Your task to perform on an android device: What's the weather going to be tomorrow? Image 0: 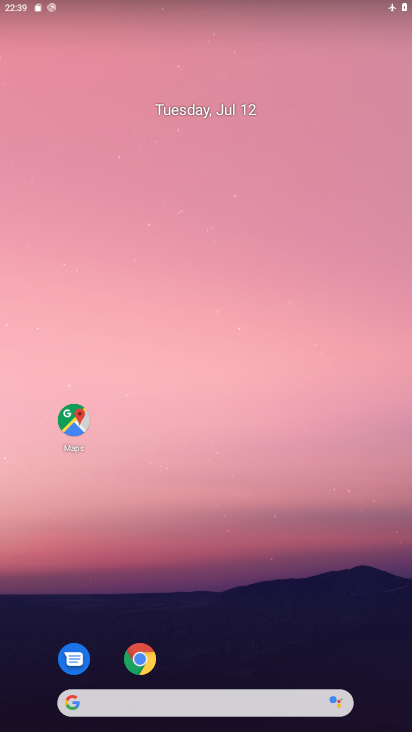
Step 0: drag from (241, 661) to (255, 409)
Your task to perform on an android device: What's the weather going to be tomorrow? Image 1: 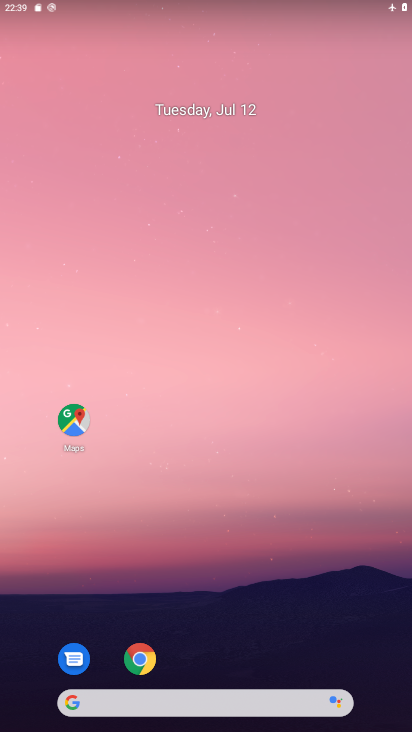
Step 1: drag from (246, 672) to (248, 469)
Your task to perform on an android device: What's the weather going to be tomorrow? Image 2: 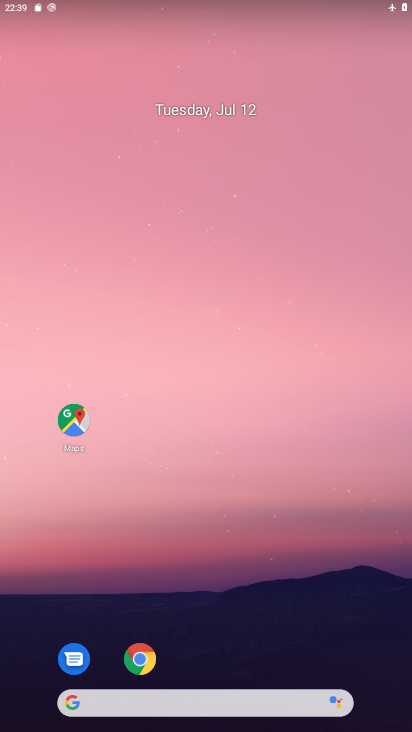
Step 2: drag from (211, 675) to (244, 229)
Your task to perform on an android device: What's the weather going to be tomorrow? Image 3: 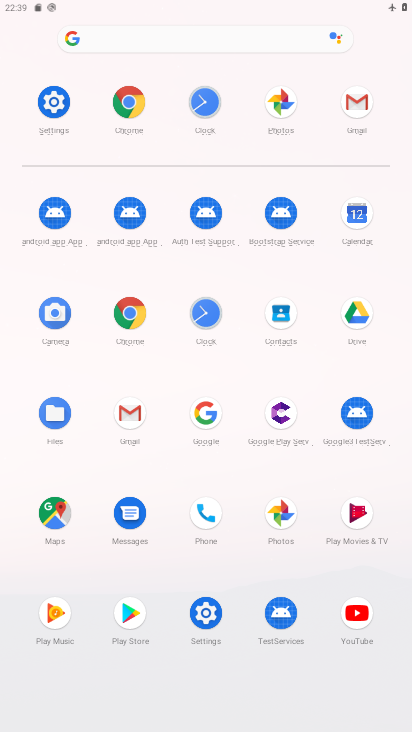
Step 3: click (124, 100)
Your task to perform on an android device: What's the weather going to be tomorrow? Image 4: 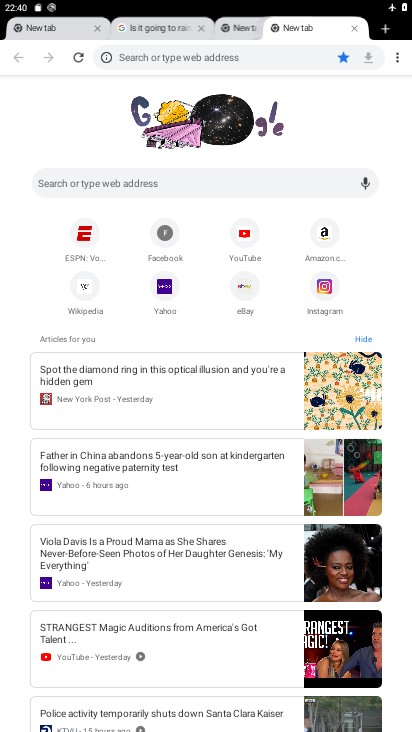
Step 4: click (171, 185)
Your task to perform on an android device: What's the weather going to be tomorrow? Image 5: 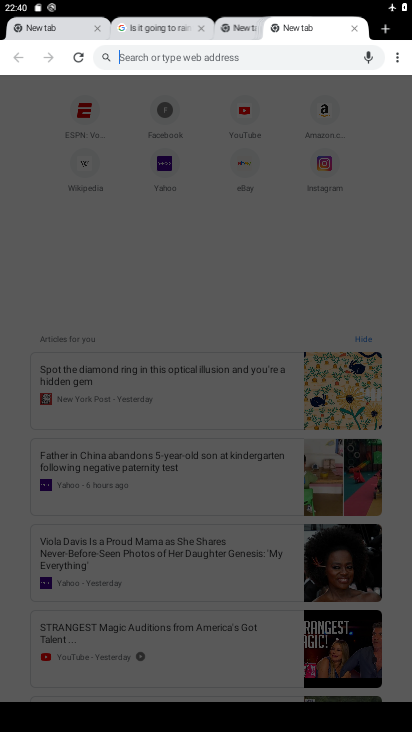
Step 5: type "What's the weather going to be tomorrow "
Your task to perform on an android device: What's the weather going to be tomorrow? Image 6: 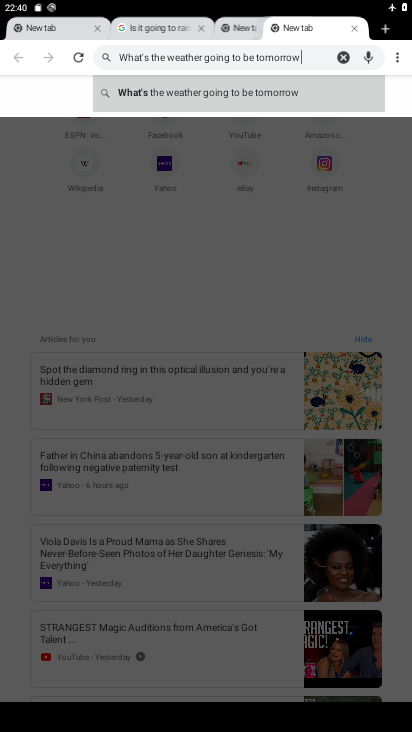
Step 6: click (206, 78)
Your task to perform on an android device: What's the weather going to be tomorrow? Image 7: 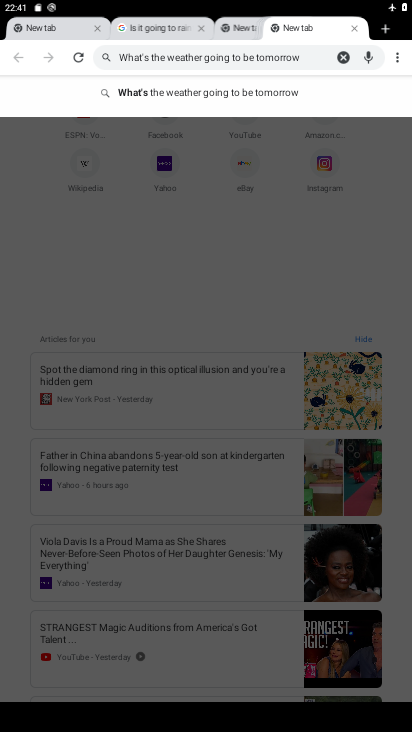
Step 7: click (240, 92)
Your task to perform on an android device: What's the weather going to be tomorrow? Image 8: 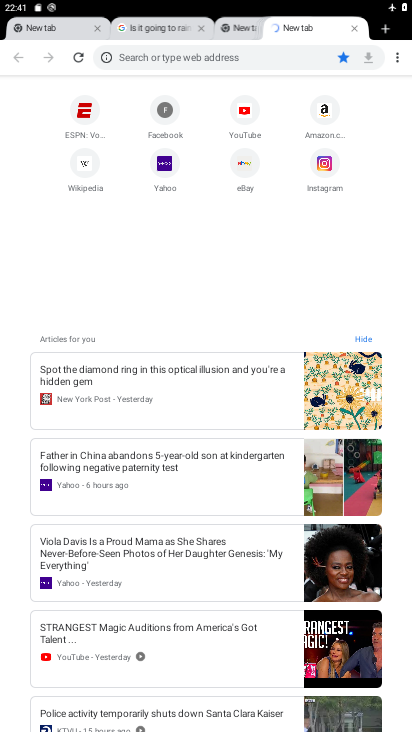
Step 8: task complete